Your task to perform on an android device: Go to Reddit.com Image 0: 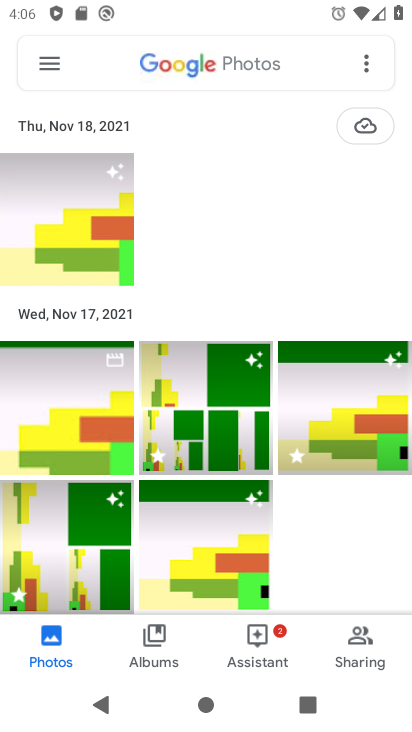
Step 0: press home button
Your task to perform on an android device: Go to Reddit.com Image 1: 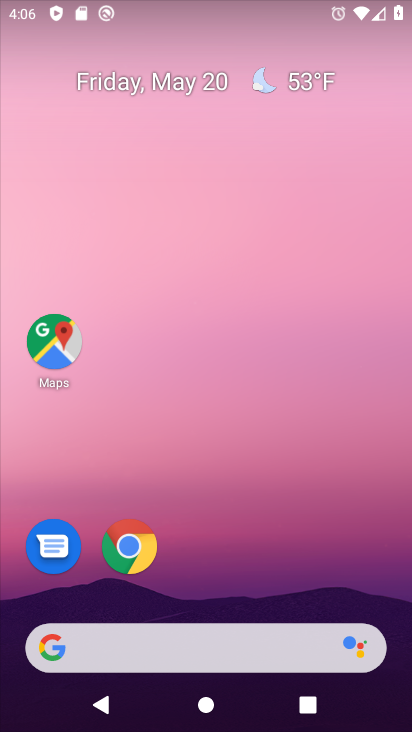
Step 1: click (133, 540)
Your task to perform on an android device: Go to Reddit.com Image 2: 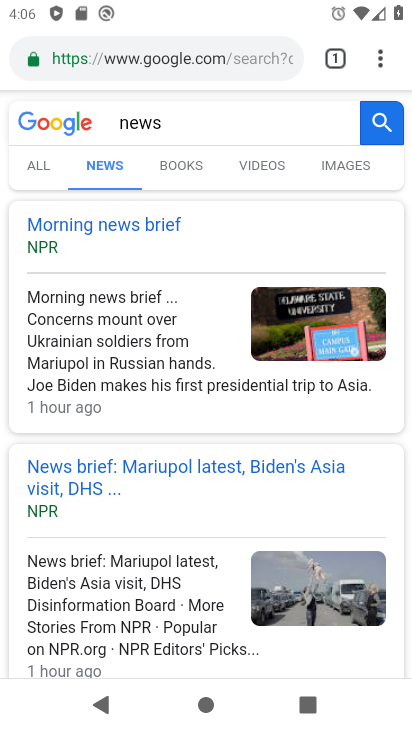
Step 2: click (178, 123)
Your task to perform on an android device: Go to Reddit.com Image 3: 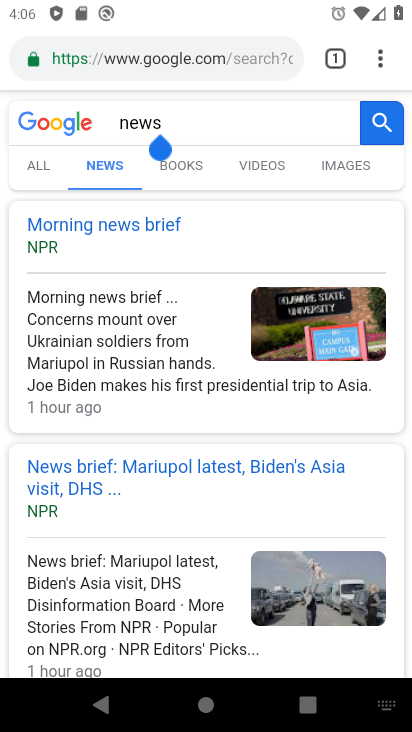
Step 3: click (167, 63)
Your task to perform on an android device: Go to Reddit.com Image 4: 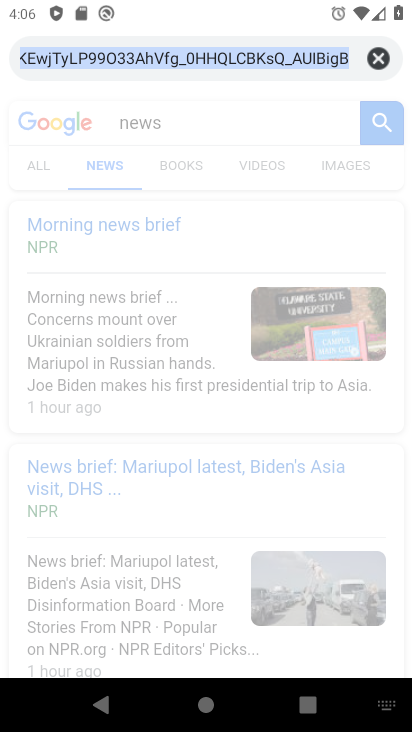
Step 4: click (376, 63)
Your task to perform on an android device: Go to Reddit.com Image 5: 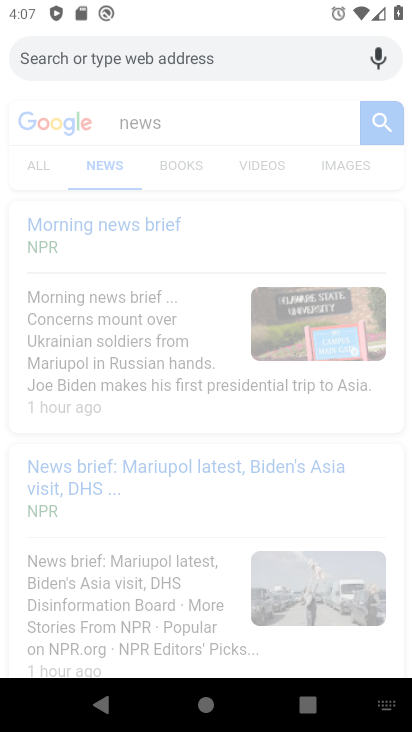
Step 5: type "reddit.com"
Your task to perform on an android device: Go to Reddit.com Image 6: 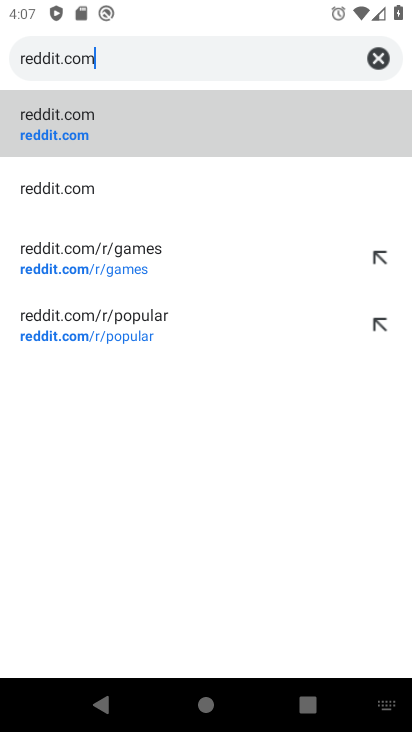
Step 6: click (45, 132)
Your task to perform on an android device: Go to Reddit.com Image 7: 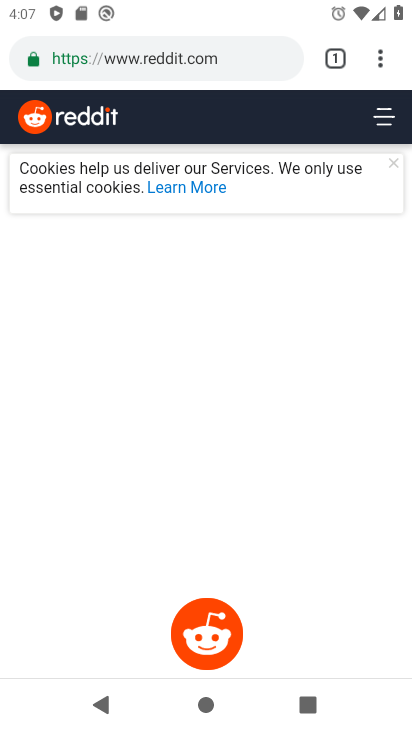
Step 7: task complete